Your task to perform on an android device: Go to eBay Image 0: 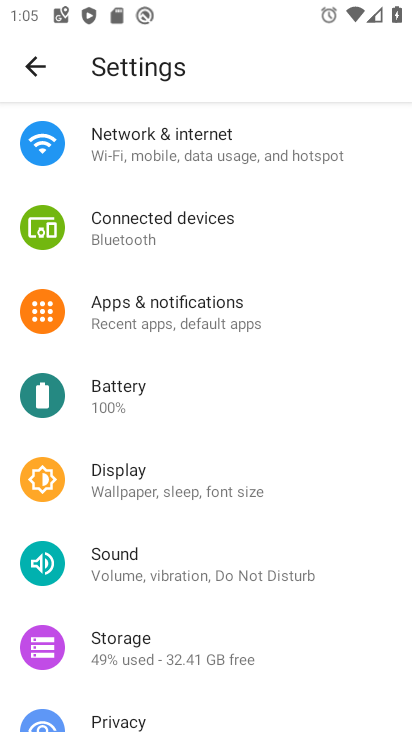
Step 0: press home button
Your task to perform on an android device: Go to eBay Image 1: 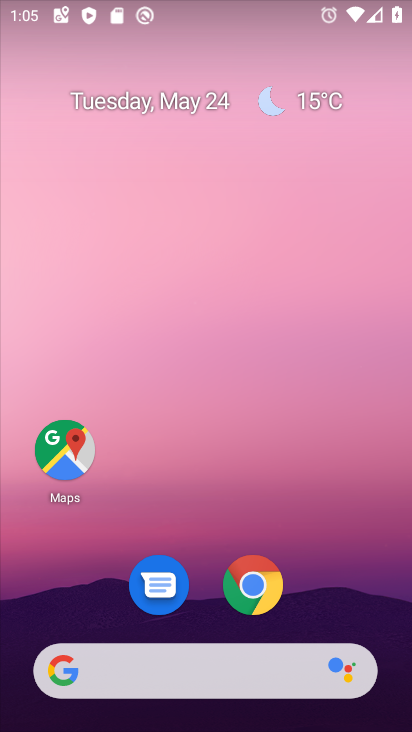
Step 1: click (283, 672)
Your task to perform on an android device: Go to eBay Image 2: 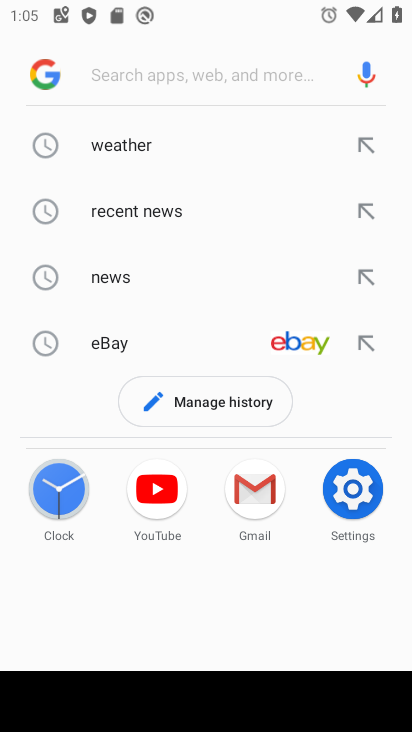
Step 2: click (108, 335)
Your task to perform on an android device: Go to eBay Image 3: 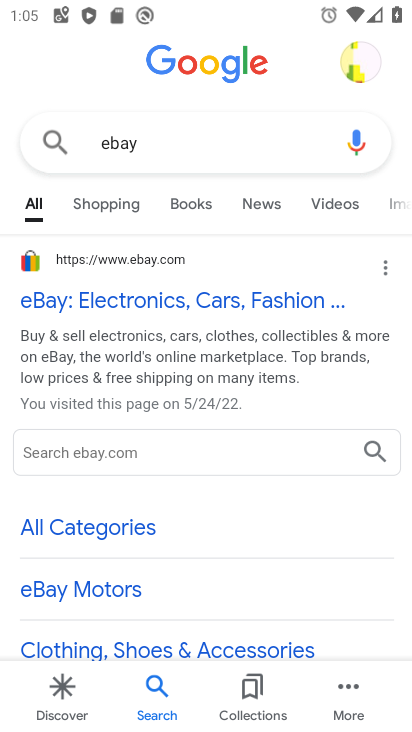
Step 3: click (48, 294)
Your task to perform on an android device: Go to eBay Image 4: 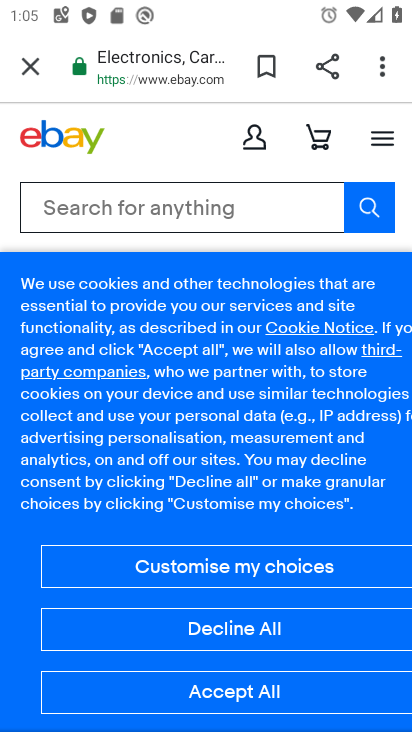
Step 4: task complete